Your task to perform on an android device: set the stopwatch Image 0: 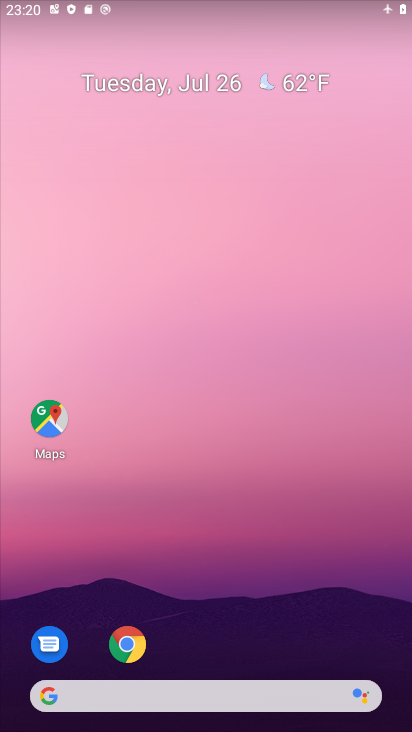
Step 0: drag from (251, 629) to (215, 0)
Your task to perform on an android device: set the stopwatch Image 1: 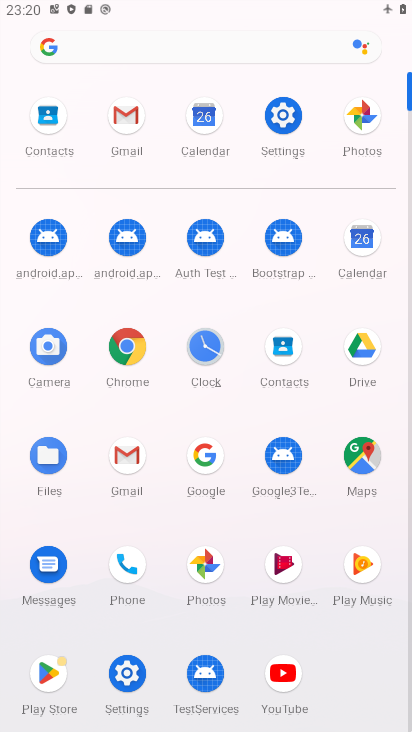
Step 1: click (201, 357)
Your task to perform on an android device: set the stopwatch Image 2: 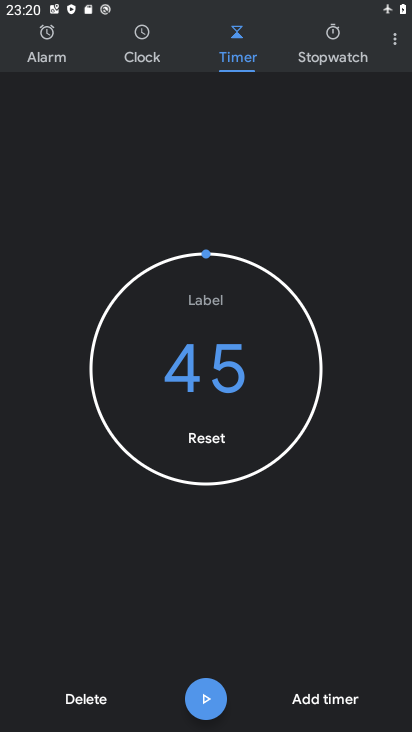
Step 2: click (327, 57)
Your task to perform on an android device: set the stopwatch Image 3: 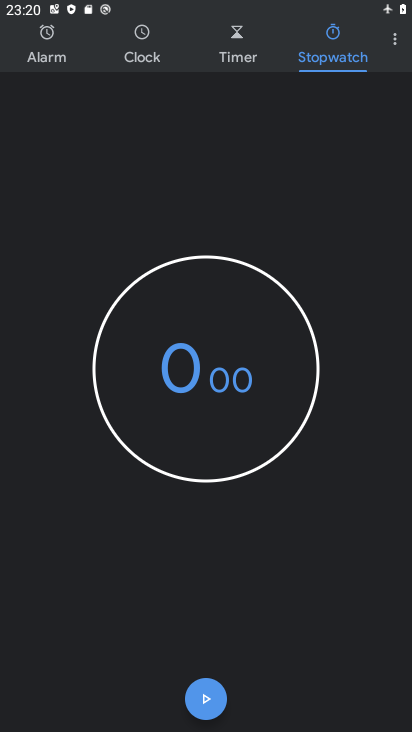
Step 3: click (218, 692)
Your task to perform on an android device: set the stopwatch Image 4: 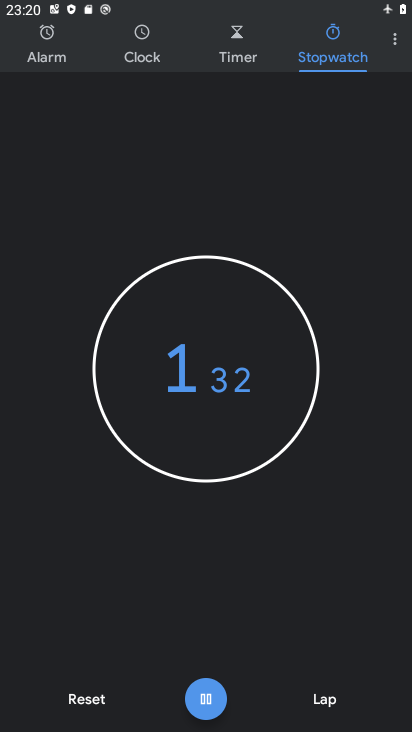
Step 4: click (212, 700)
Your task to perform on an android device: set the stopwatch Image 5: 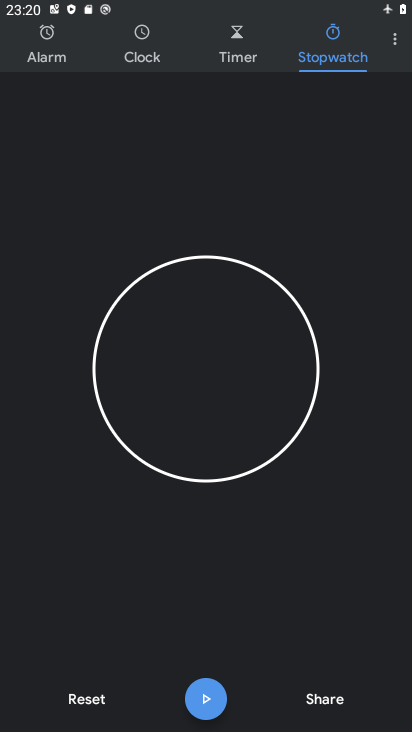
Step 5: task complete